Your task to perform on an android device: turn on showing notifications on the lock screen Image 0: 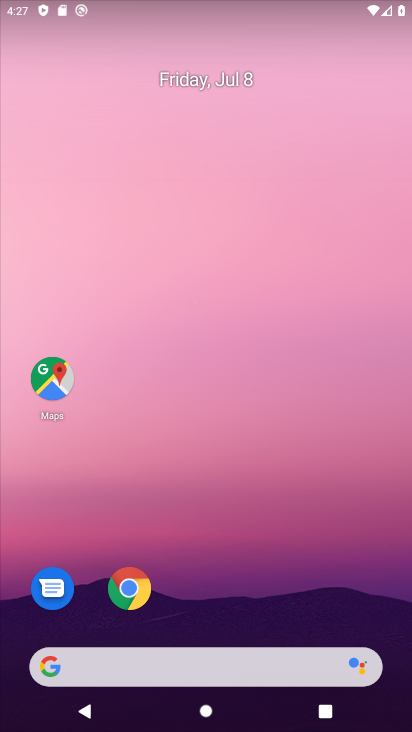
Step 0: drag from (263, 411) to (186, 93)
Your task to perform on an android device: turn on showing notifications on the lock screen Image 1: 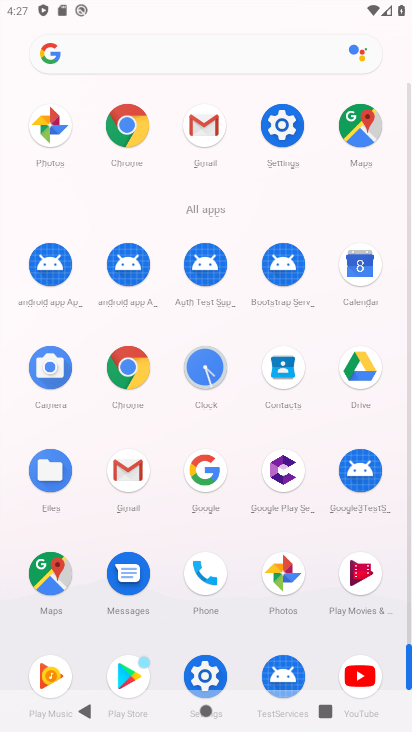
Step 1: drag from (187, 507) to (139, 331)
Your task to perform on an android device: turn on showing notifications on the lock screen Image 2: 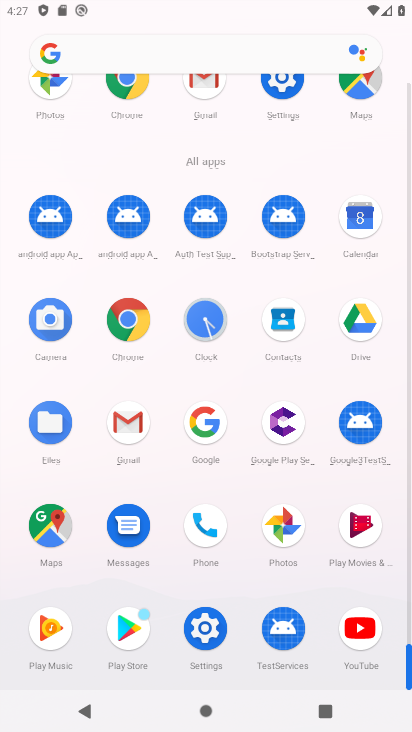
Step 2: click (209, 628)
Your task to perform on an android device: turn on showing notifications on the lock screen Image 3: 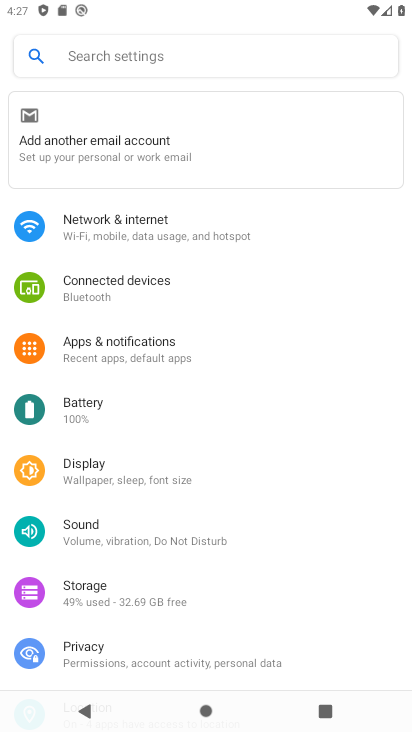
Step 3: drag from (177, 501) to (146, 194)
Your task to perform on an android device: turn on showing notifications on the lock screen Image 4: 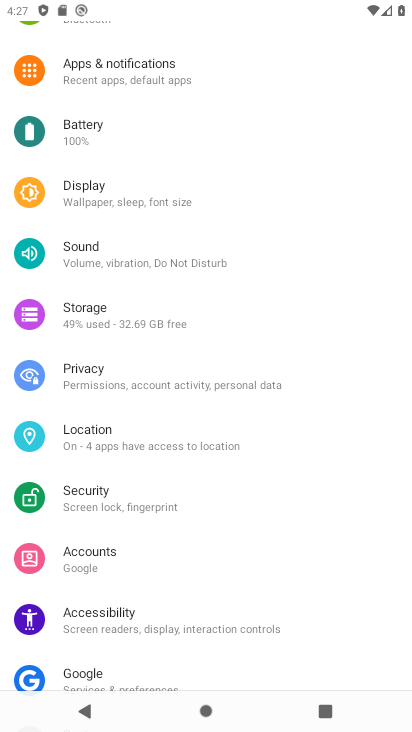
Step 4: drag from (177, 599) to (138, 449)
Your task to perform on an android device: turn on showing notifications on the lock screen Image 5: 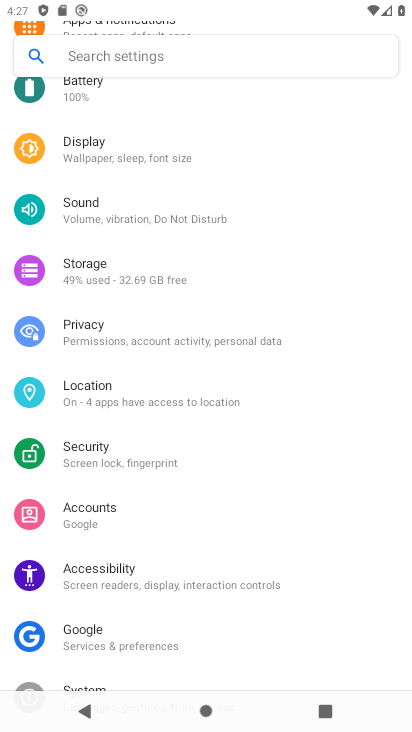
Step 5: drag from (119, 353) to (119, 434)
Your task to perform on an android device: turn on showing notifications on the lock screen Image 6: 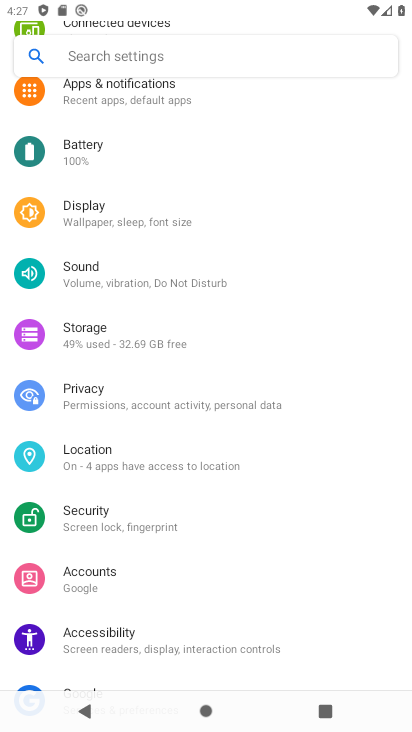
Step 6: click (146, 62)
Your task to perform on an android device: turn on showing notifications on the lock screen Image 7: 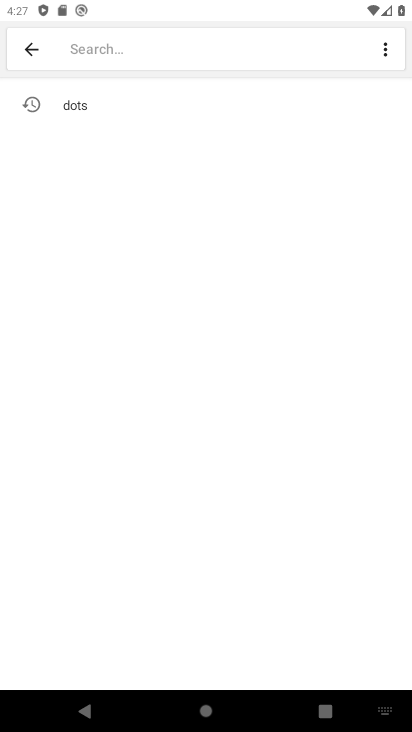
Step 7: type "lock scr"
Your task to perform on an android device: turn on showing notifications on the lock screen Image 8: 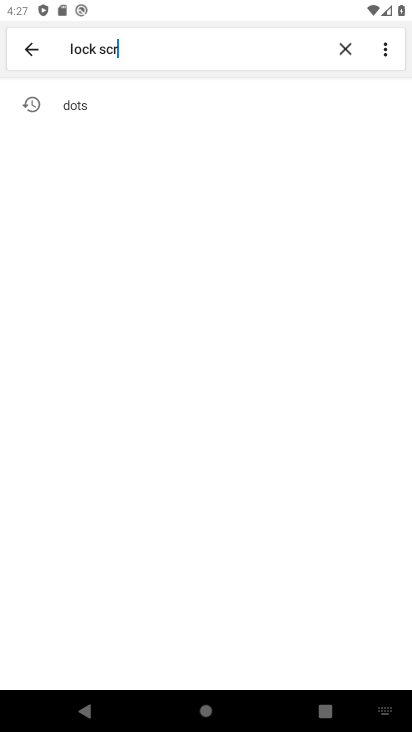
Step 8: type ""
Your task to perform on an android device: turn on showing notifications on the lock screen Image 9: 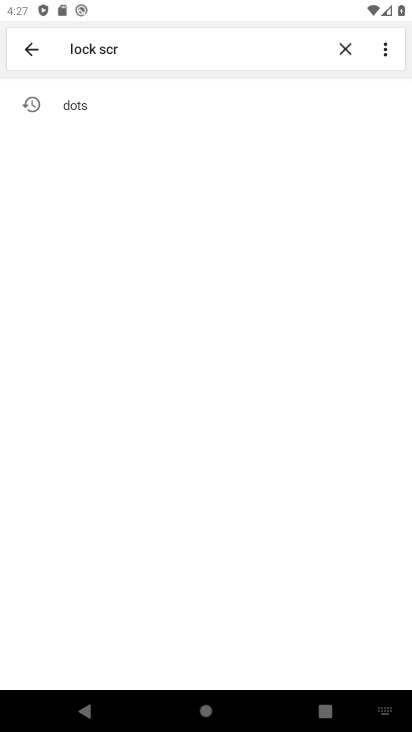
Step 9: press enter
Your task to perform on an android device: turn on showing notifications on the lock screen Image 10: 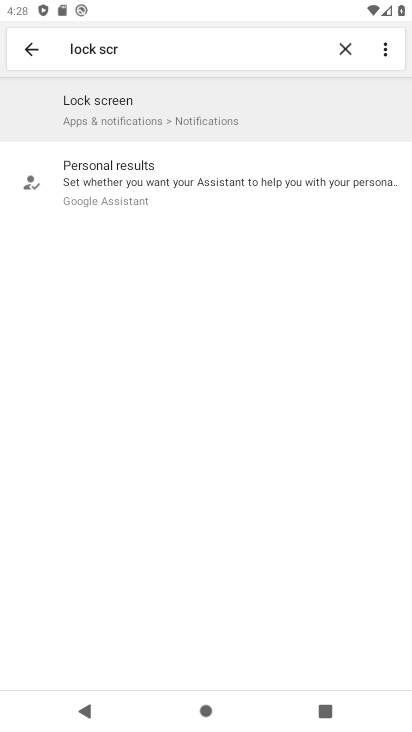
Step 10: click (139, 114)
Your task to perform on an android device: turn on showing notifications on the lock screen Image 11: 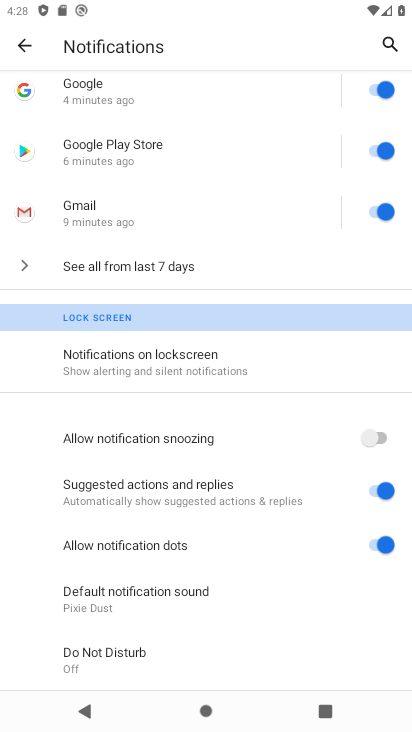
Step 11: click (132, 378)
Your task to perform on an android device: turn on showing notifications on the lock screen Image 12: 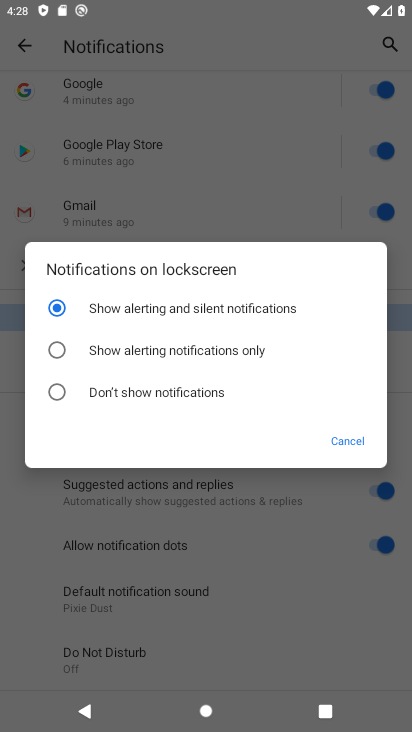
Step 12: click (144, 305)
Your task to perform on an android device: turn on showing notifications on the lock screen Image 13: 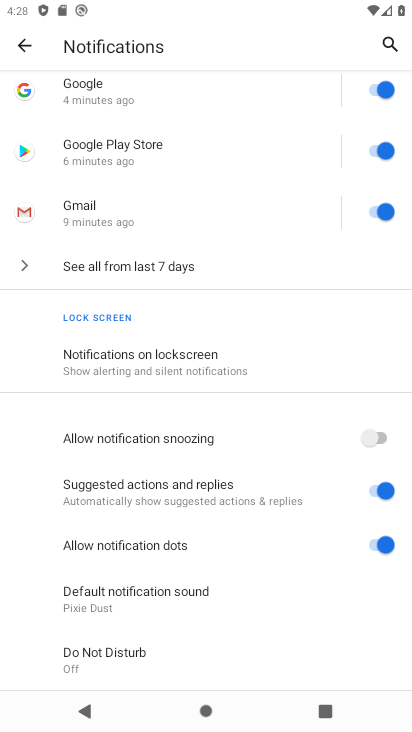
Step 13: task complete